Your task to perform on an android device: toggle sleep mode Image 0: 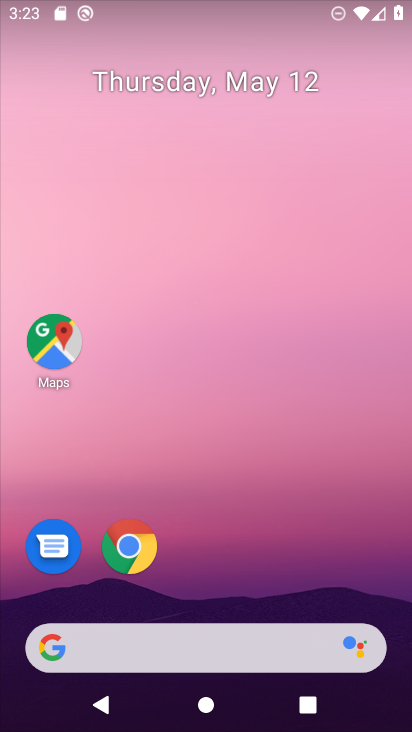
Step 0: drag from (230, 578) to (247, 203)
Your task to perform on an android device: toggle sleep mode Image 1: 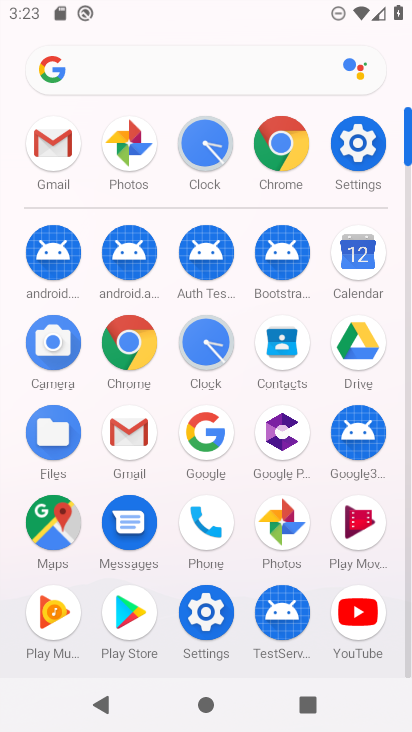
Step 1: click (337, 133)
Your task to perform on an android device: toggle sleep mode Image 2: 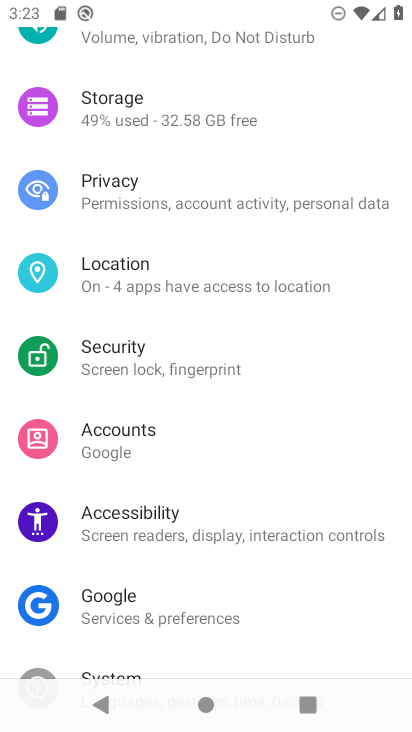
Step 2: task complete